Your task to perform on an android device: open chrome privacy settings Image 0: 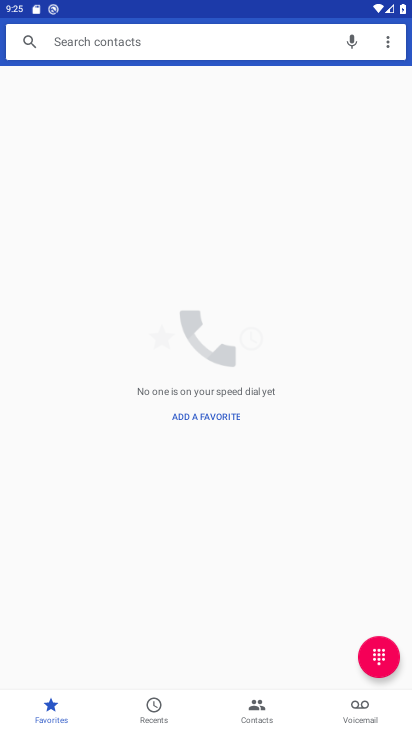
Step 0: press home button
Your task to perform on an android device: open chrome privacy settings Image 1: 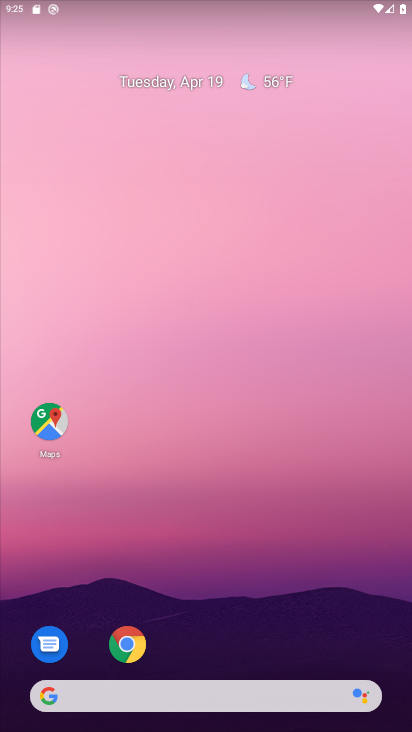
Step 1: click (132, 635)
Your task to perform on an android device: open chrome privacy settings Image 2: 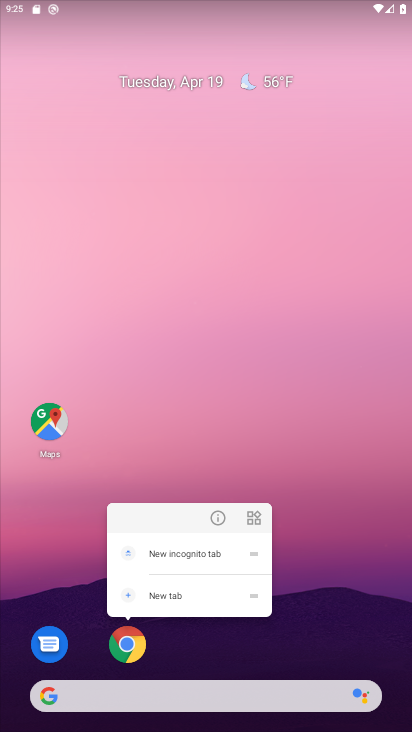
Step 2: click (126, 649)
Your task to perform on an android device: open chrome privacy settings Image 3: 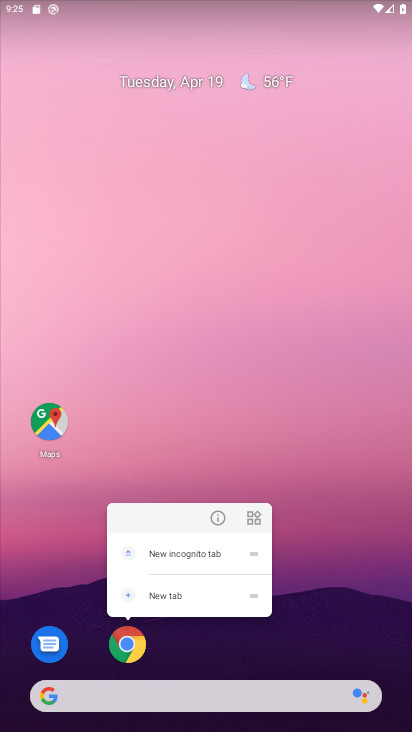
Step 3: click (139, 644)
Your task to perform on an android device: open chrome privacy settings Image 4: 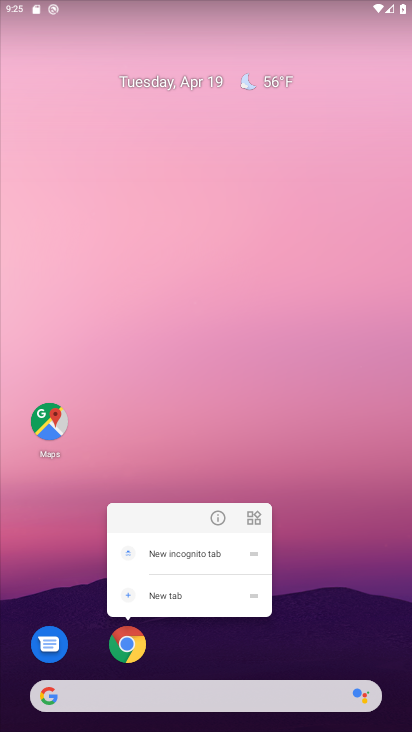
Step 4: click (139, 644)
Your task to perform on an android device: open chrome privacy settings Image 5: 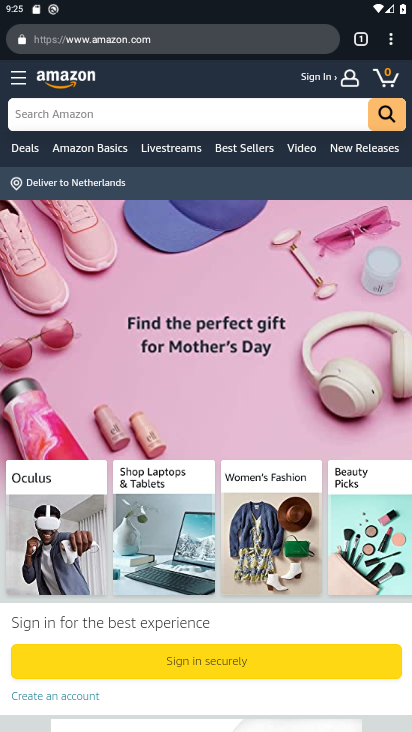
Step 5: drag from (390, 38) to (254, 427)
Your task to perform on an android device: open chrome privacy settings Image 6: 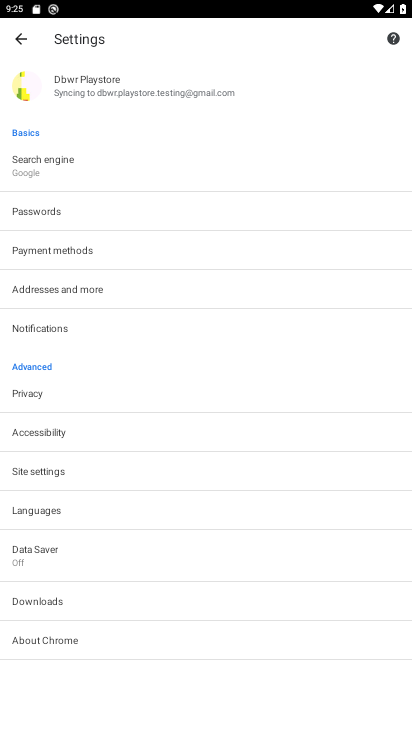
Step 6: click (41, 391)
Your task to perform on an android device: open chrome privacy settings Image 7: 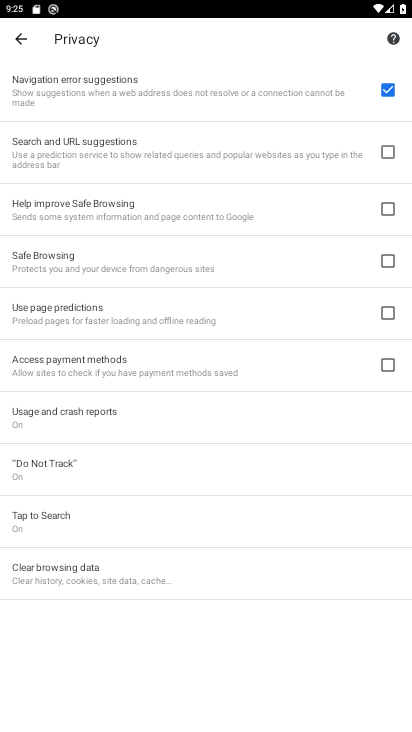
Step 7: task complete